Your task to perform on an android device: toggle pop-ups in chrome Image 0: 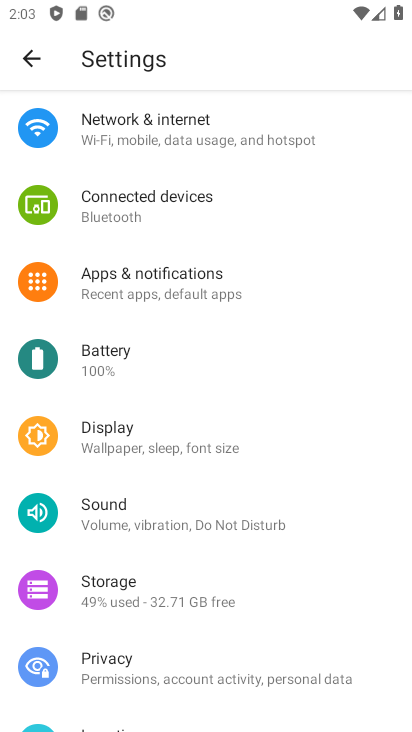
Step 0: drag from (228, 606) to (272, 190)
Your task to perform on an android device: toggle pop-ups in chrome Image 1: 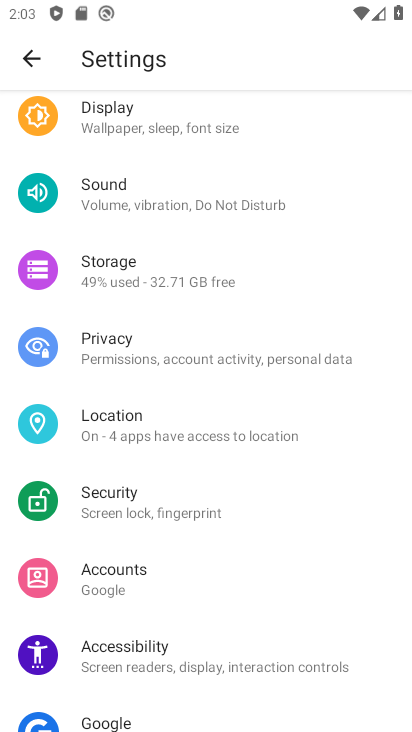
Step 1: drag from (137, 652) to (205, 286)
Your task to perform on an android device: toggle pop-ups in chrome Image 2: 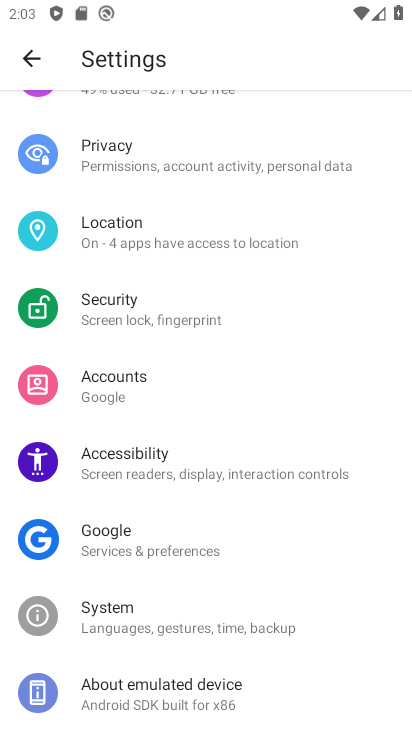
Step 2: press home button
Your task to perform on an android device: toggle pop-ups in chrome Image 3: 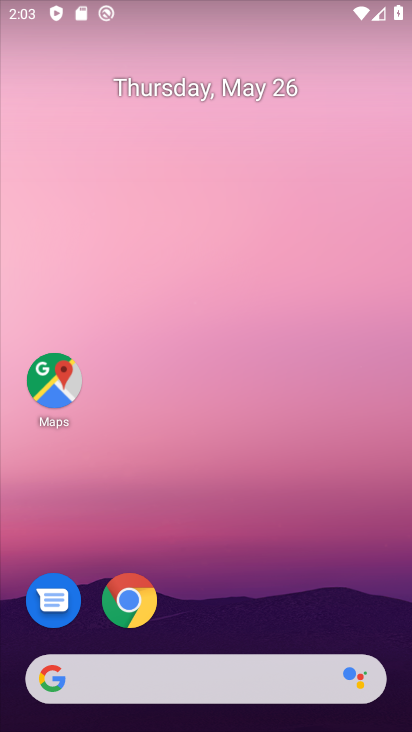
Step 3: click (121, 606)
Your task to perform on an android device: toggle pop-ups in chrome Image 4: 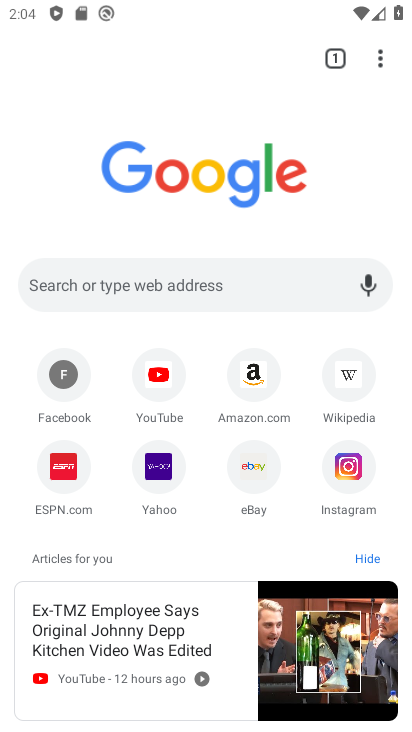
Step 4: click (387, 65)
Your task to perform on an android device: toggle pop-ups in chrome Image 5: 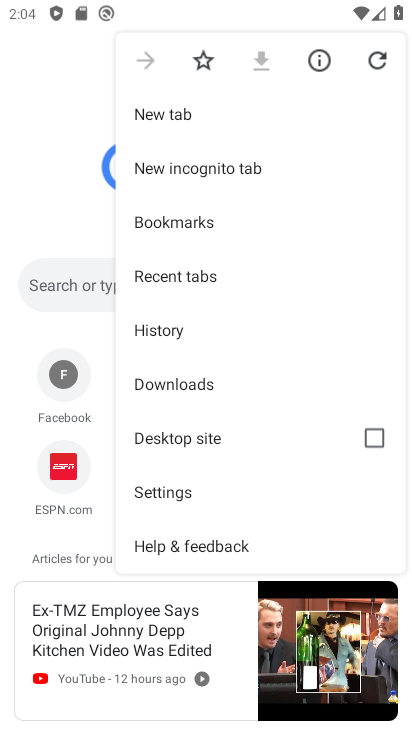
Step 5: click (187, 488)
Your task to perform on an android device: toggle pop-ups in chrome Image 6: 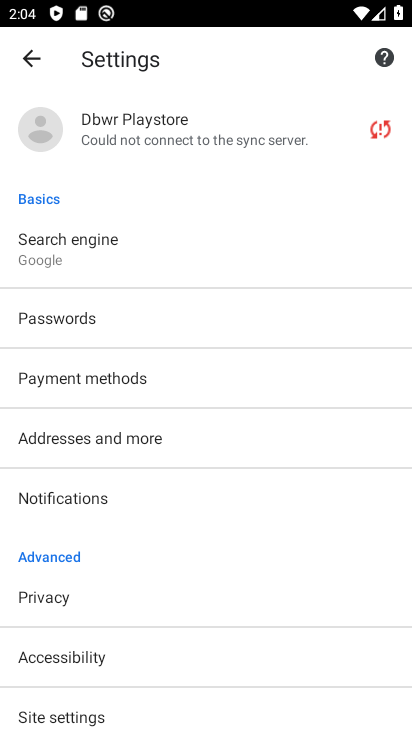
Step 6: drag from (259, 623) to (253, 294)
Your task to perform on an android device: toggle pop-ups in chrome Image 7: 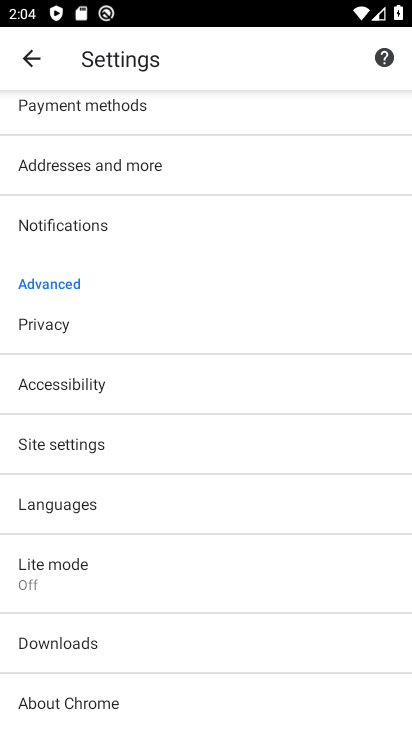
Step 7: drag from (138, 609) to (169, 324)
Your task to perform on an android device: toggle pop-ups in chrome Image 8: 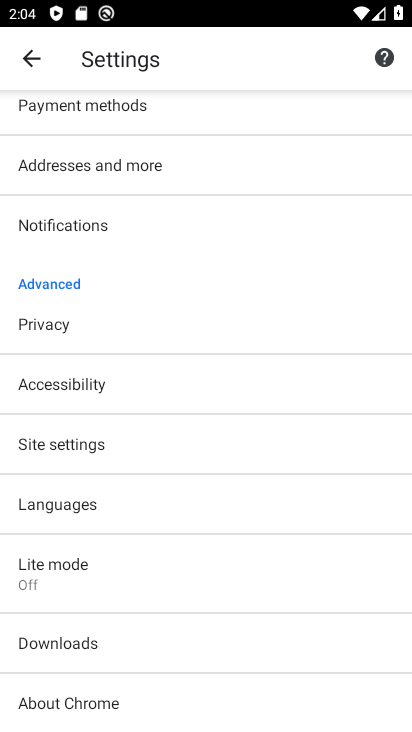
Step 8: drag from (194, 547) to (217, 312)
Your task to perform on an android device: toggle pop-ups in chrome Image 9: 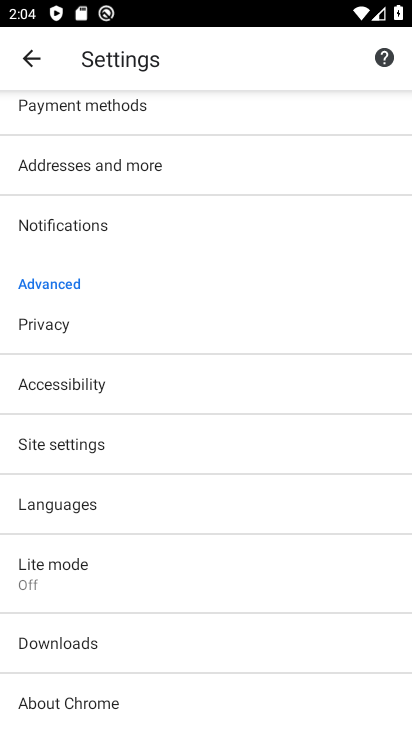
Step 9: click (176, 457)
Your task to perform on an android device: toggle pop-ups in chrome Image 10: 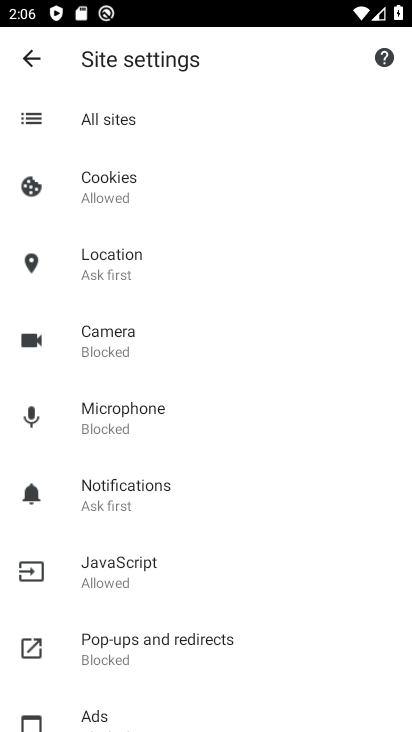
Step 10: click (240, 633)
Your task to perform on an android device: toggle pop-ups in chrome Image 11: 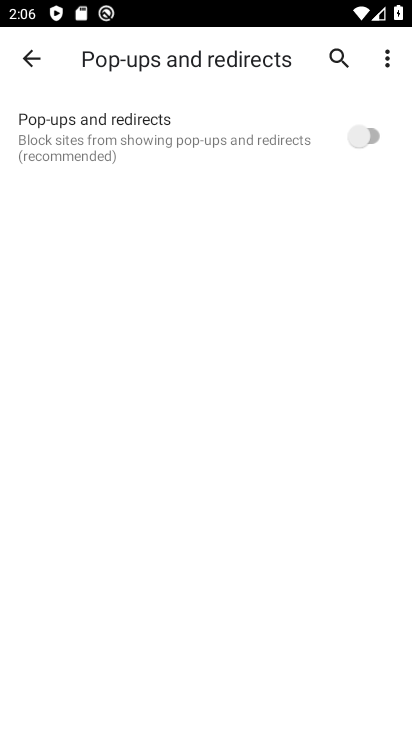
Step 11: click (371, 141)
Your task to perform on an android device: toggle pop-ups in chrome Image 12: 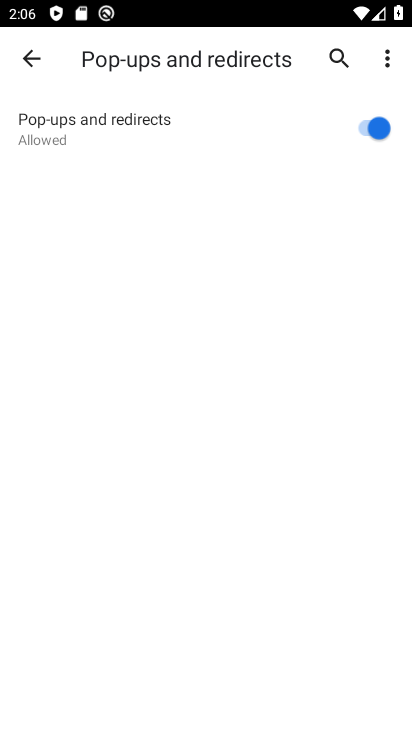
Step 12: task complete